Your task to perform on an android device: Open settings on Google Maps Image 0: 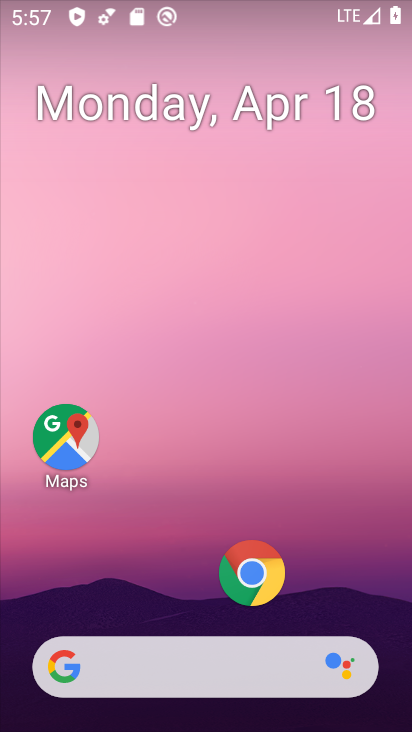
Step 0: drag from (175, 600) to (409, 3)
Your task to perform on an android device: Open settings on Google Maps Image 1: 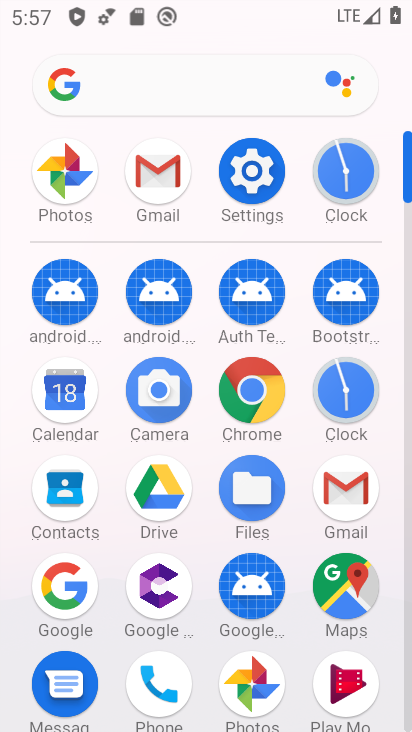
Step 1: click (345, 587)
Your task to perform on an android device: Open settings on Google Maps Image 2: 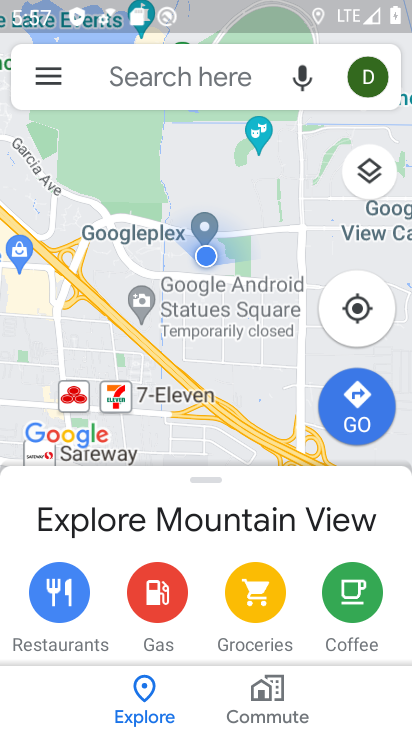
Step 2: click (35, 70)
Your task to perform on an android device: Open settings on Google Maps Image 3: 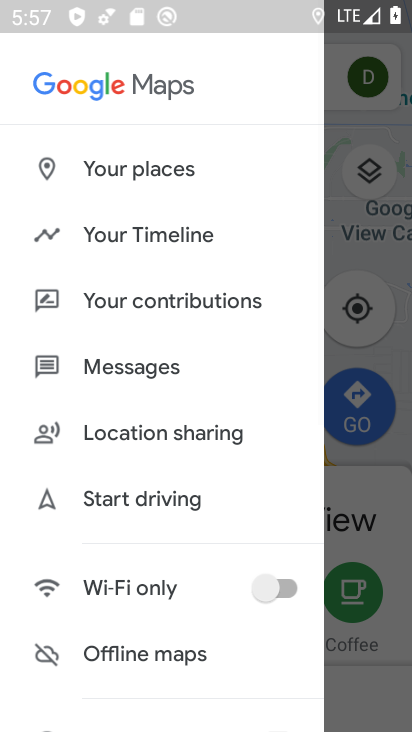
Step 3: drag from (134, 620) to (352, 11)
Your task to perform on an android device: Open settings on Google Maps Image 4: 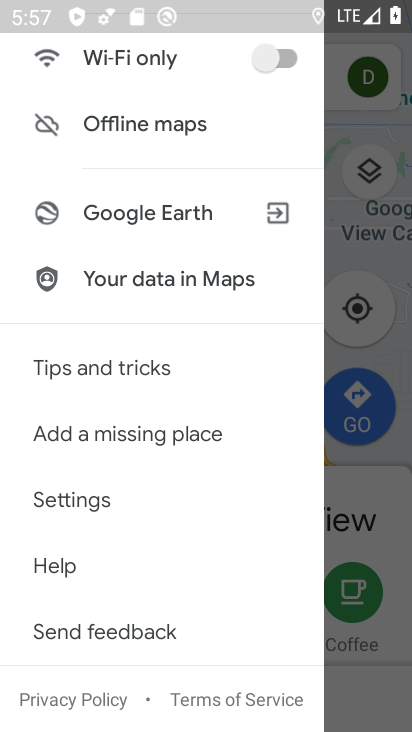
Step 4: click (104, 503)
Your task to perform on an android device: Open settings on Google Maps Image 5: 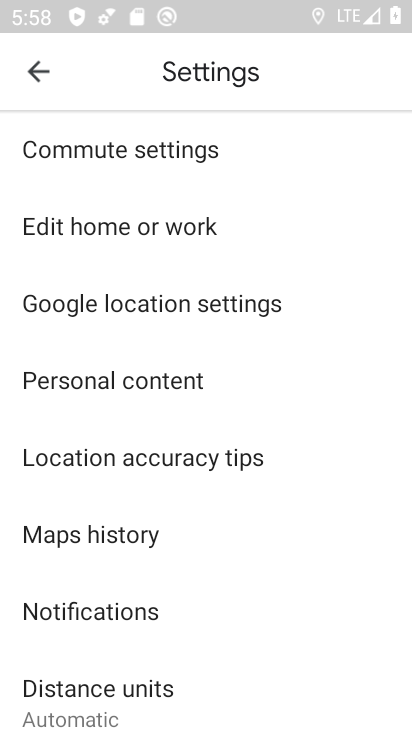
Step 5: task complete